Your task to perform on an android device: Open my contact list Image 0: 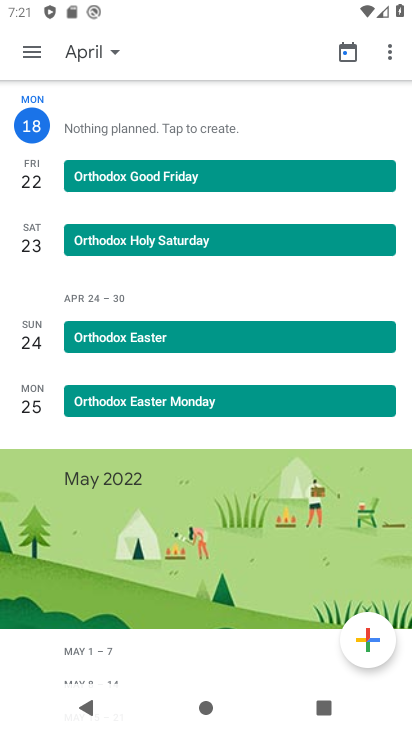
Step 0: press back button
Your task to perform on an android device: Open my contact list Image 1: 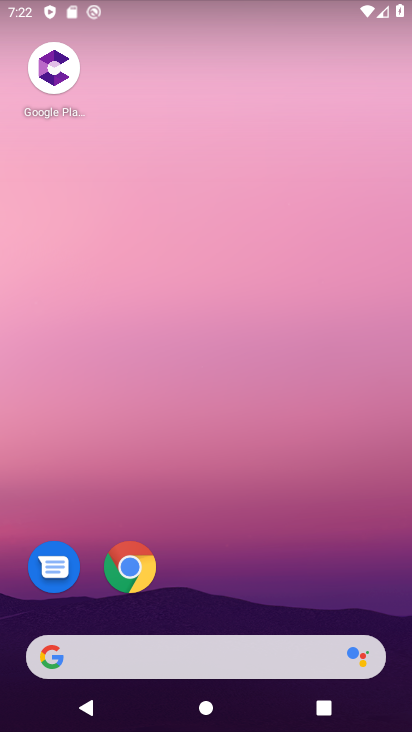
Step 1: drag from (243, 684) to (343, 35)
Your task to perform on an android device: Open my contact list Image 2: 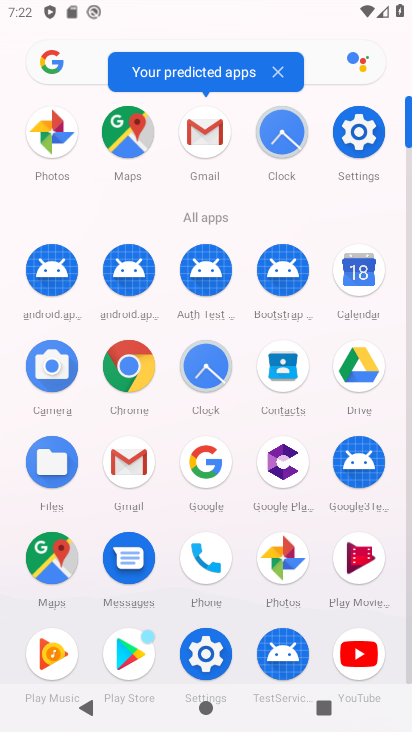
Step 2: click (192, 559)
Your task to perform on an android device: Open my contact list Image 3: 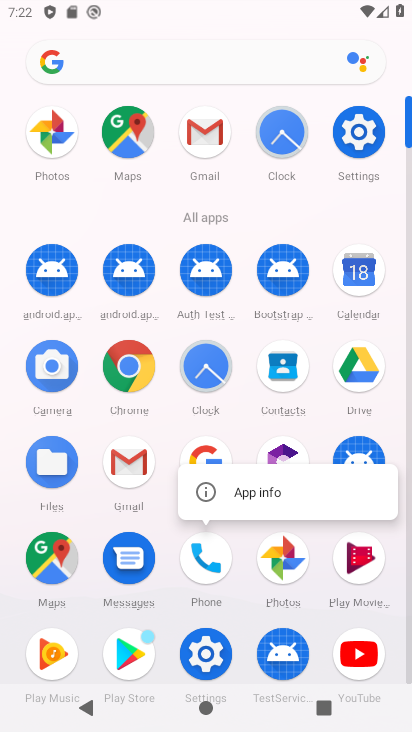
Step 3: click (197, 559)
Your task to perform on an android device: Open my contact list Image 4: 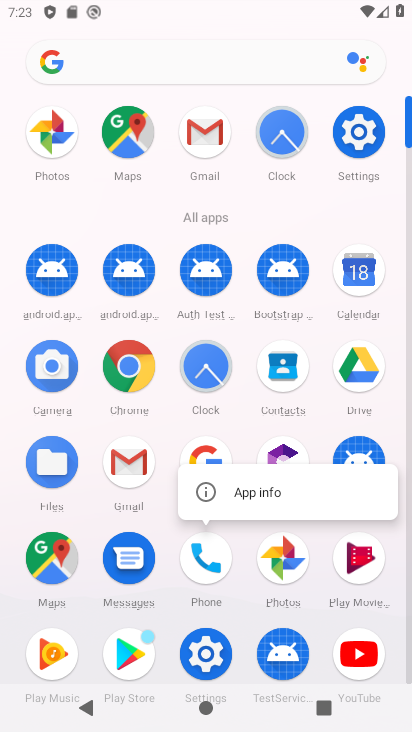
Step 4: click (203, 569)
Your task to perform on an android device: Open my contact list Image 5: 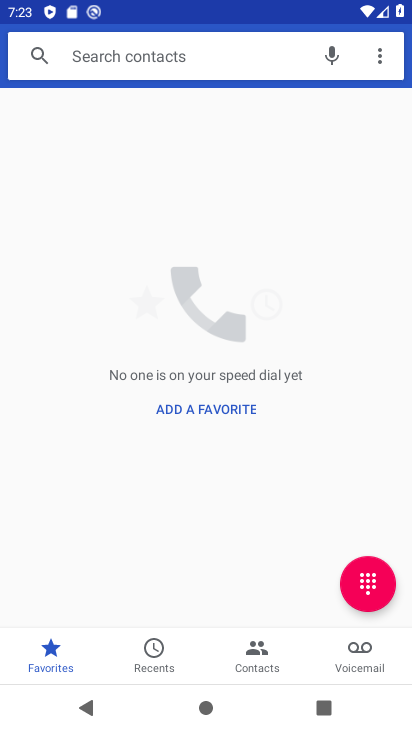
Step 5: click (242, 659)
Your task to perform on an android device: Open my contact list Image 6: 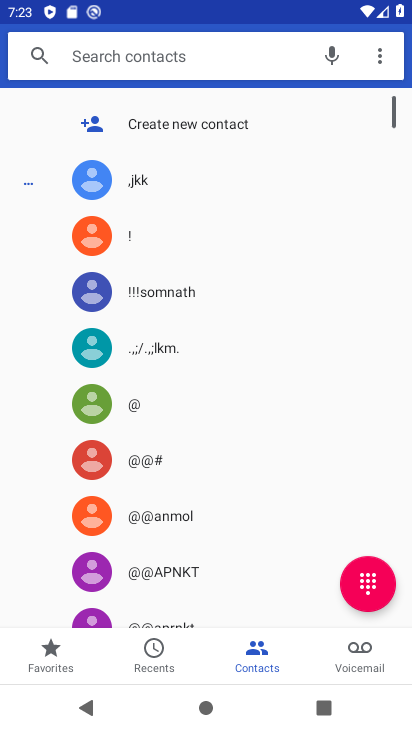
Step 6: task complete